Your task to perform on an android device: Open the map Image 0: 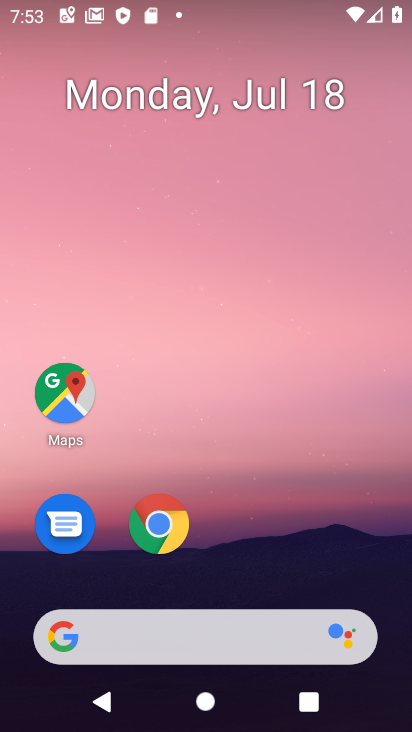
Step 0: click (65, 392)
Your task to perform on an android device: Open the map Image 1: 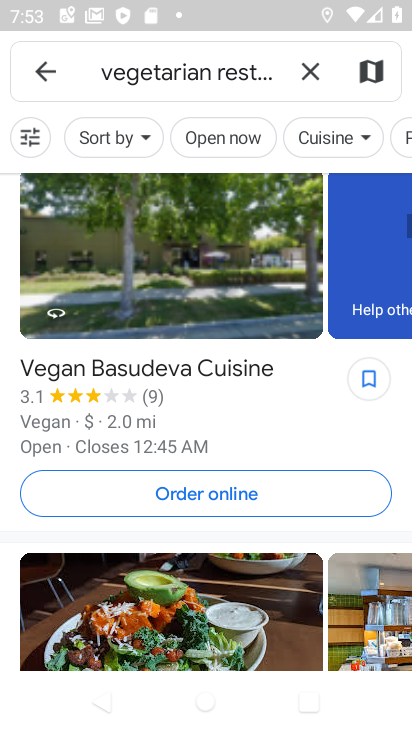
Step 1: click (304, 63)
Your task to perform on an android device: Open the map Image 2: 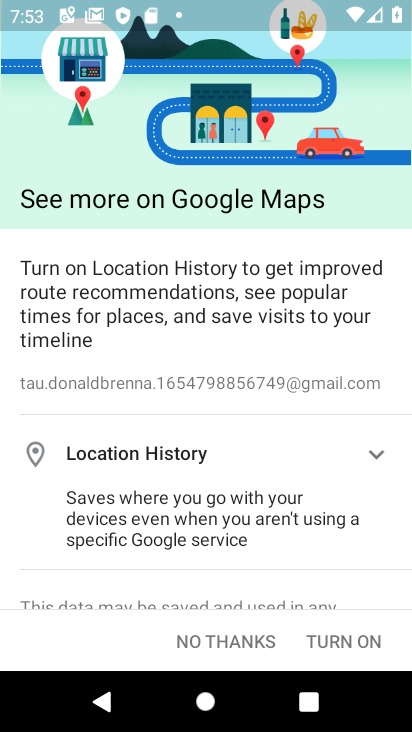
Step 2: click (345, 635)
Your task to perform on an android device: Open the map Image 3: 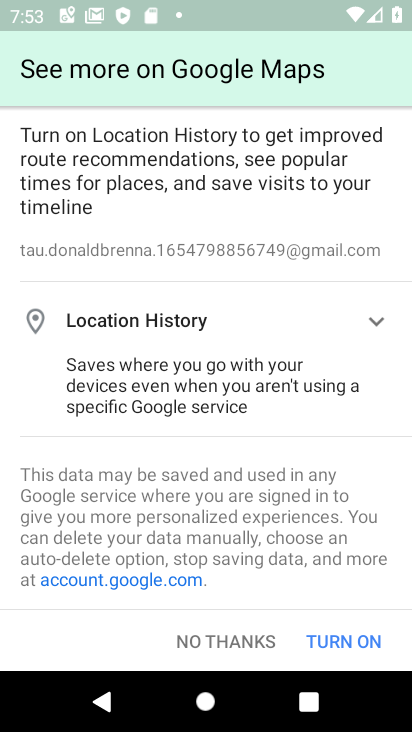
Step 3: click (347, 635)
Your task to perform on an android device: Open the map Image 4: 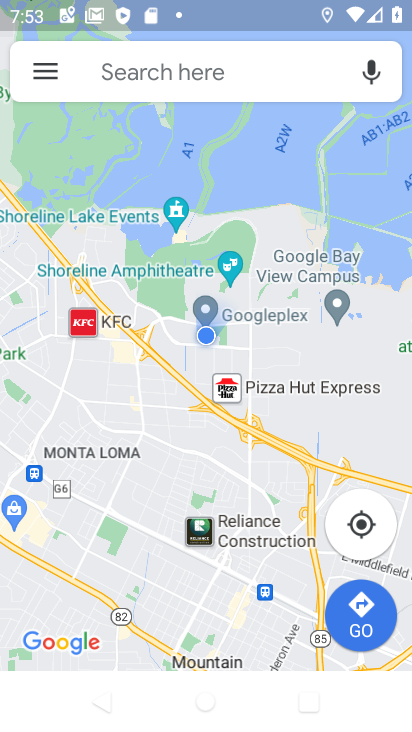
Step 4: task complete